Your task to perform on an android device: toggle location history Image 0: 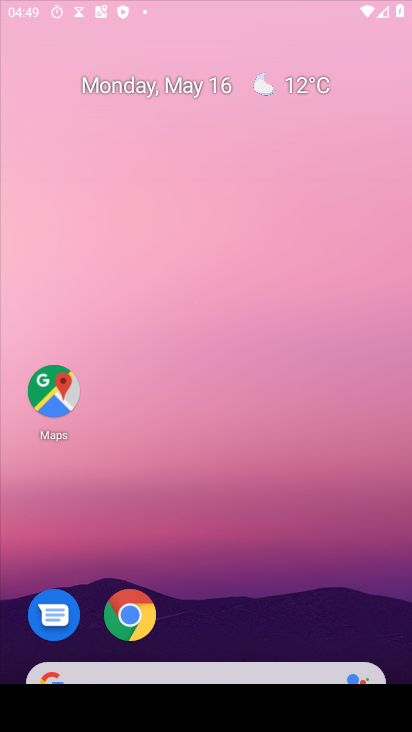
Step 0: drag from (365, 646) to (254, 29)
Your task to perform on an android device: toggle location history Image 1: 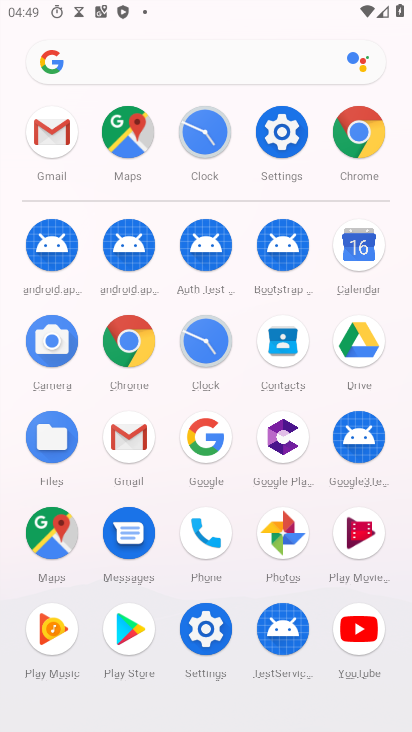
Step 1: click (60, 543)
Your task to perform on an android device: toggle location history Image 2: 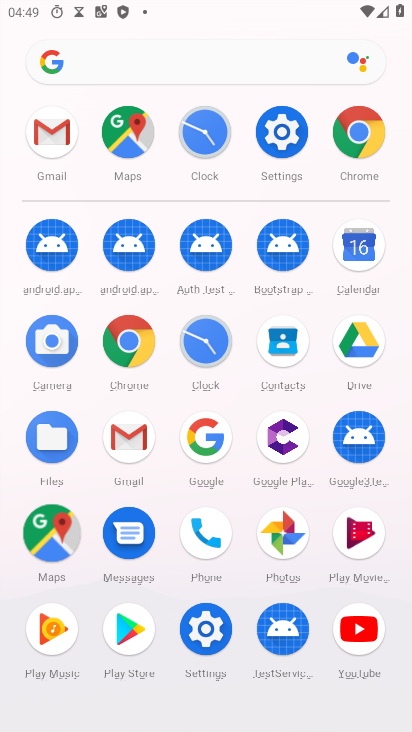
Step 2: click (60, 543)
Your task to perform on an android device: toggle location history Image 3: 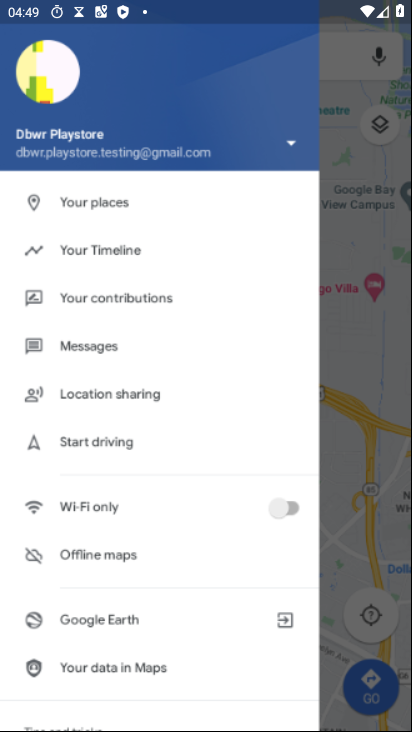
Step 3: click (61, 543)
Your task to perform on an android device: toggle location history Image 4: 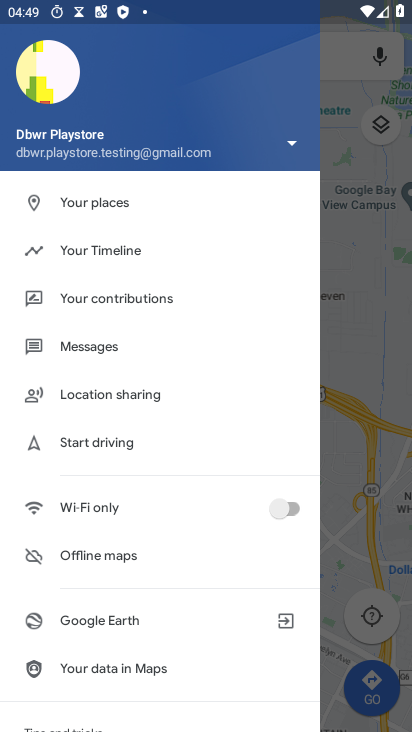
Step 4: click (102, 254)
Your task to perform on an android device: toggle location history Image 5: 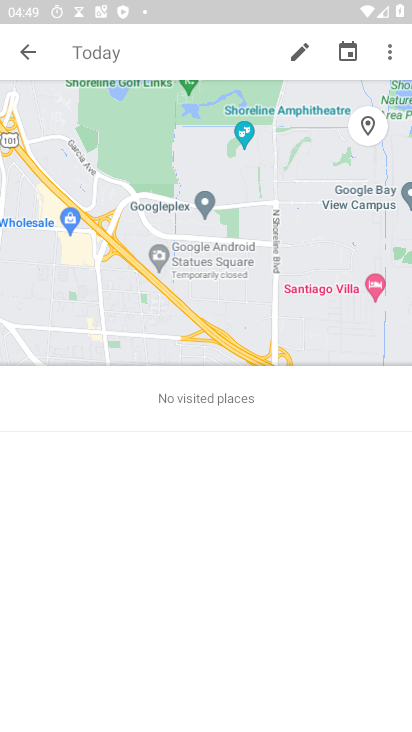
Step 5: click (395, 60)
Your task to perform on an android device: toggle location history Image 6: 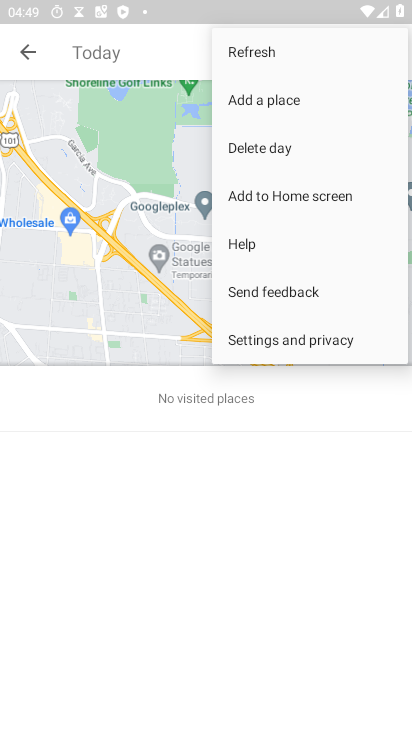
Step 6: click (301, 329)
Your task to perform on an android device: toggle location history Image 7: 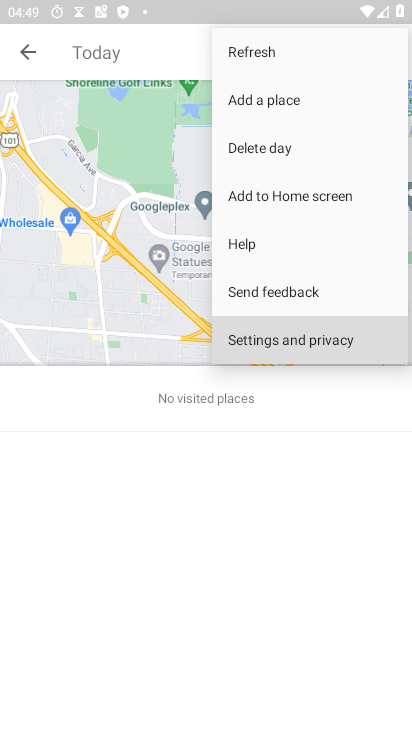
Step 7: click (301, 329)
Your task to perform on an android device: toggle location history Image 8: 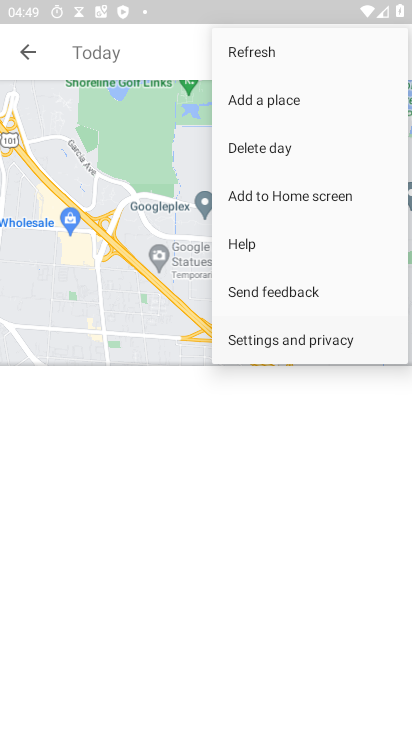
Step 8: click (302, 330)
Your task to perform on an android device: toggle location history Image 9: 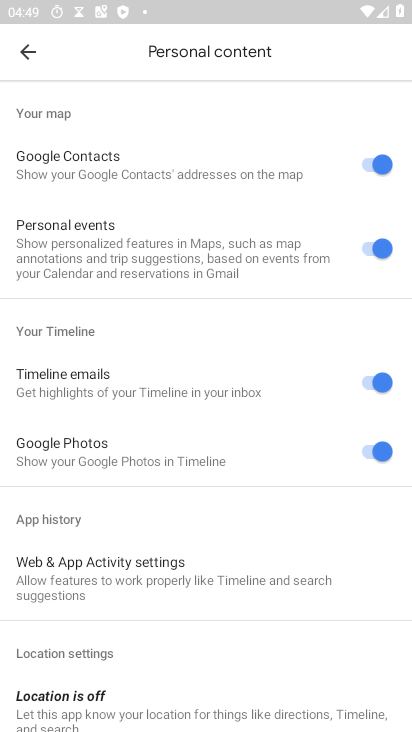
Step 9: drag from (130, 589) to (102, 145)
Your task to perform on an android device: toggle location history Image 10: 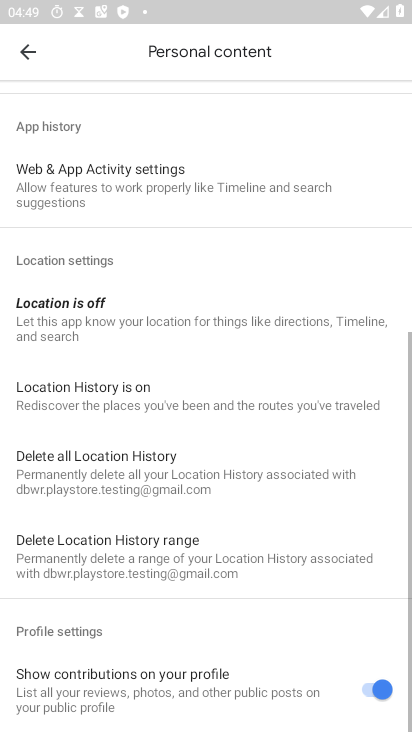
Step 10: drag from (206, 586) to (168, 142)
Your task to perform on an android device: toggle location history Image 11: 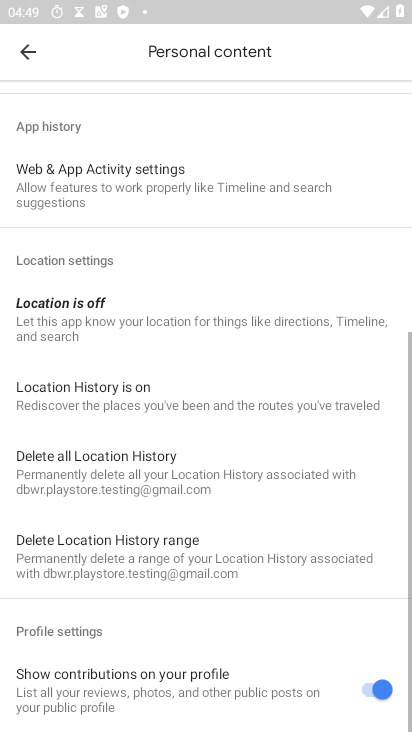
Step 11: drag from (183, 595) to (131, 197)
Your task to perform on an android device: toggle location history Image 12: 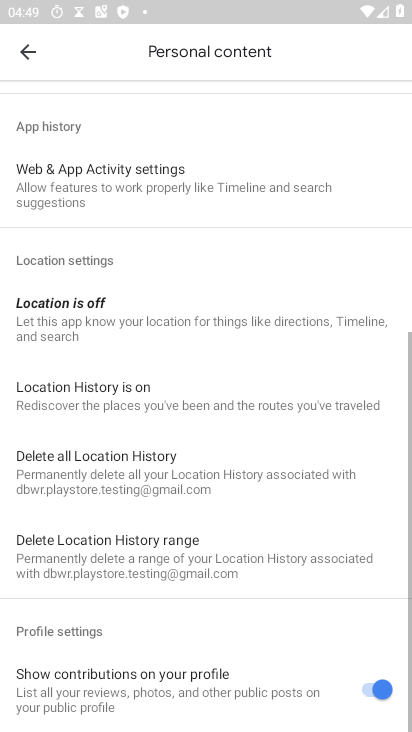
Step 12: drag from (82, 475) to (49, 204)
Your task to perform on an android device: toggle location history Image 13: 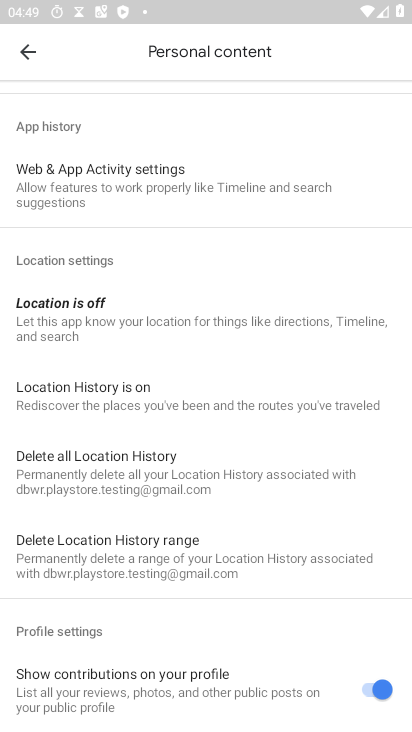
Step 13: click (60, 402)
Your task to perform on an android device: toggle location history Image 14: 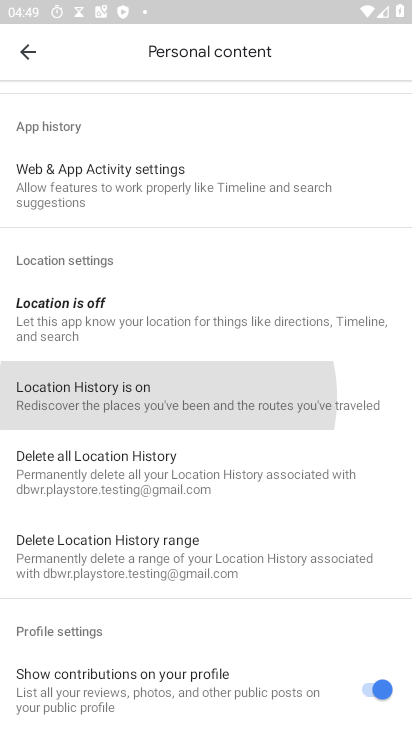
Step 14: click (62, 389)
Your task to perform on an android device: toggle location history Image 15: 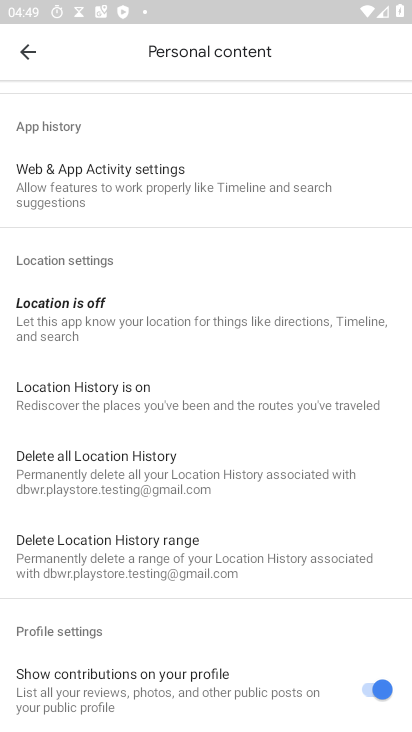
Step 15: click (63, 389)
Your task to perform on an android device: toggle location history Image 16: 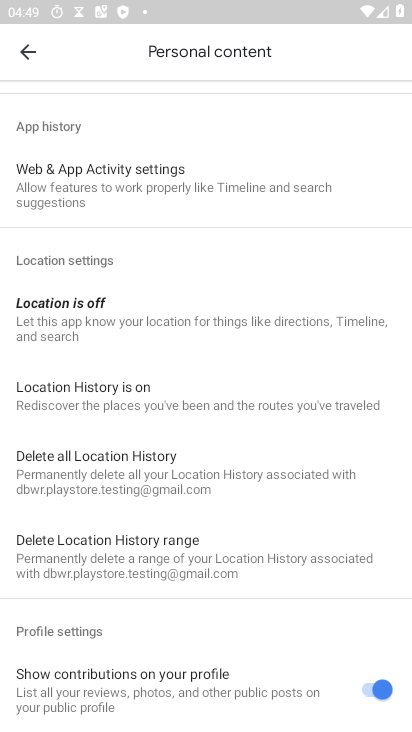
Step 16: click (67, 387)
Your task to perform on an android device: toggle location history Image 17: 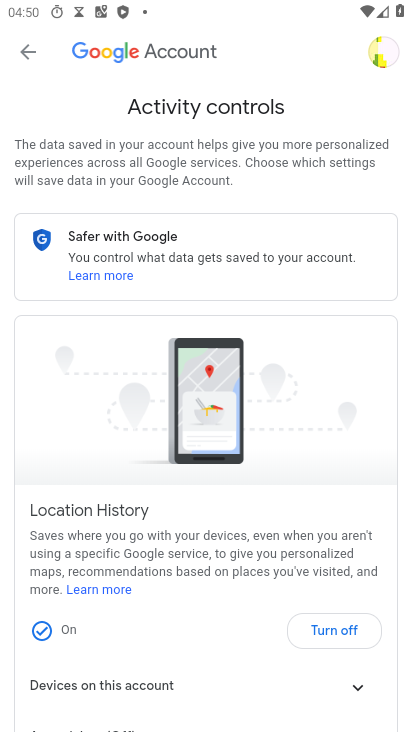
Step 17: drag from (267, 494) to (216, 60)
Your task to perform on an android device: toggle location history Image 18: 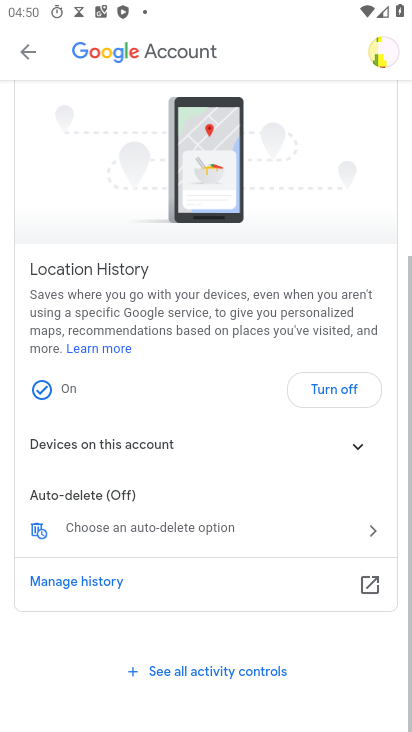
Step 18: drag from (311, 434) to (311, 188)
Your task to perform on an android device: toggle location history Image 19: 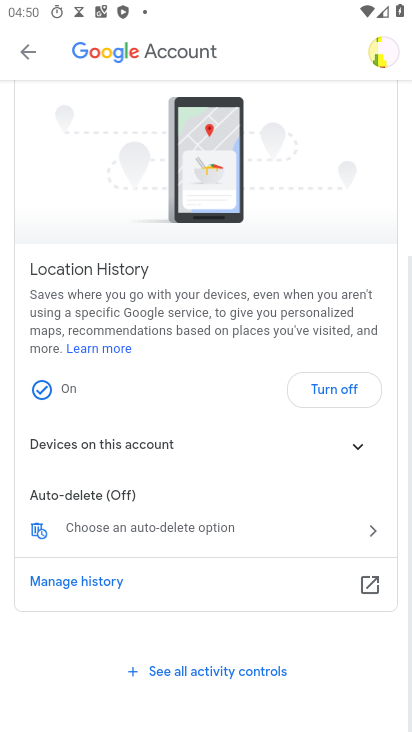
Step 19: drag from (390, 531) to (291, 165)
Your task to perform on an android device: toggle location history Image 20: 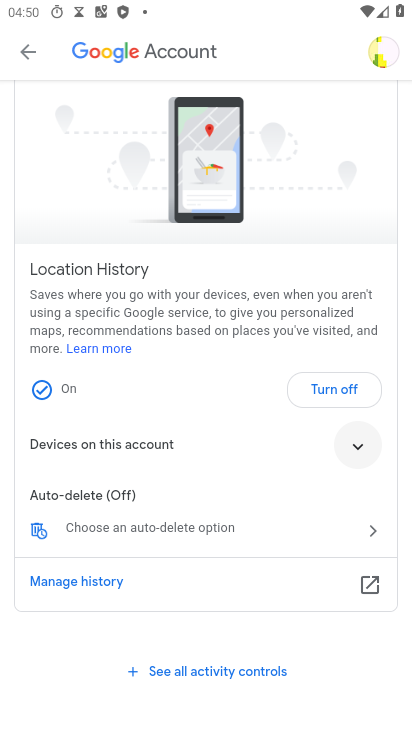
Step 20: drag from (294, 520) to (240, 111)
Your task to perform on an android device: toggle location history Image 21: 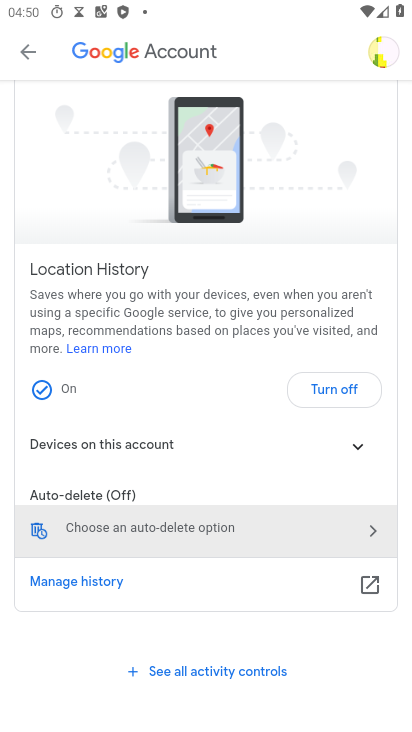
Step 21: drag from (282, 411) to (274, 98)
Your task to perform on an android device: toggle location history Image 22: 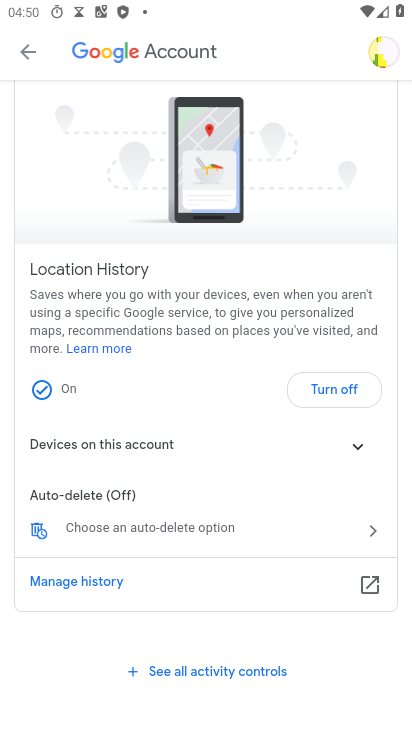
Step 22: click (329, 388)
Your task to perform on an android device: toggle location history Image 23: 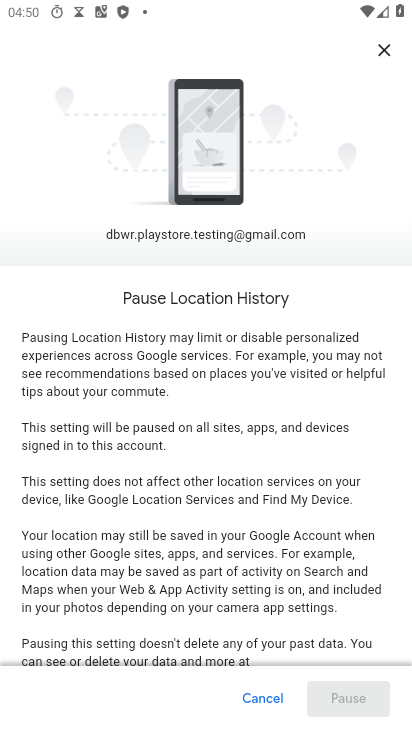
Step 23: task complete